Your task to perform on an android device: What's on my calendar today? Image 0: 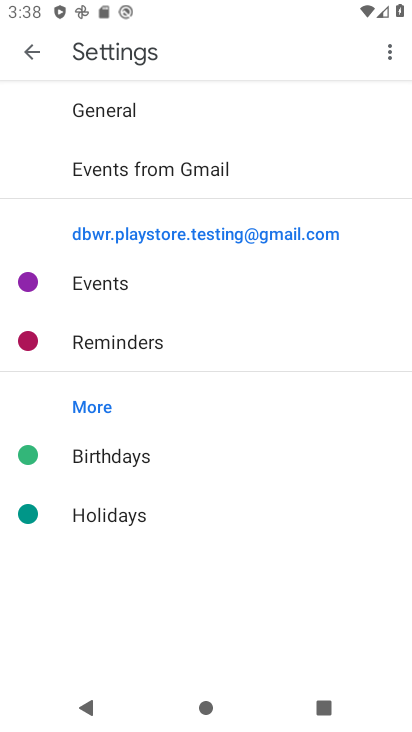
Step 0: press home button
Your task to perform on an android device: What's on my calendar today? Image 1: 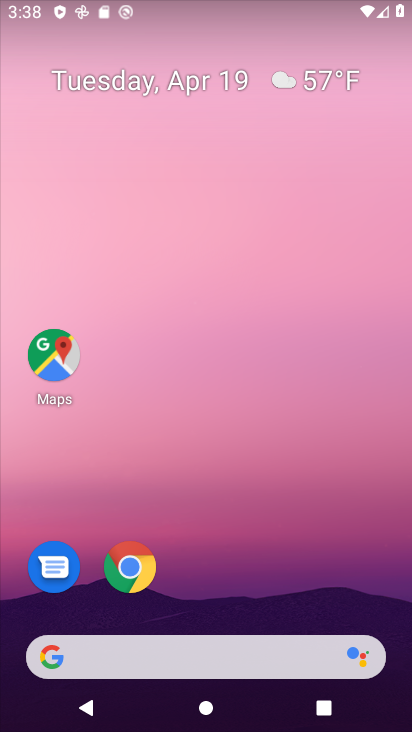
Step 1: drag from (340, 574) to (325, 177)
Your task to perform on an android device: What's on my calendar today? Image 2: 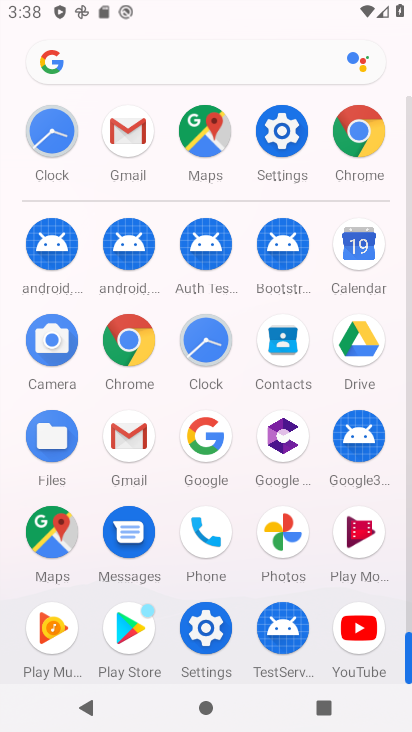
Step 2: click (362, 258)
Your task to perform on an android device: What's on my calendar today? Image 3: 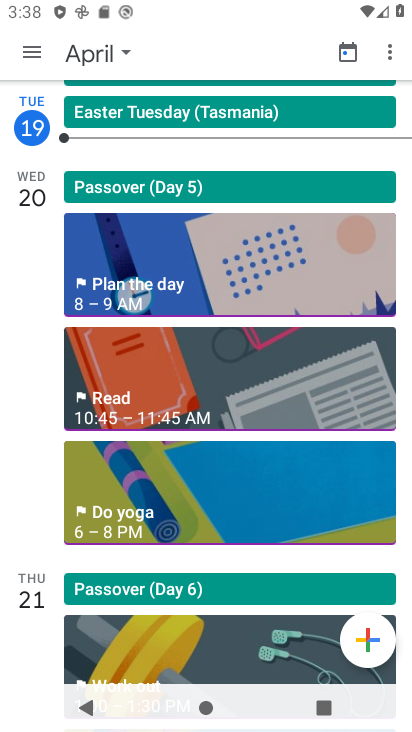
Step 3: click (40, 43)
Your task to perform on an android device: What's on my calendar today? Image 4: 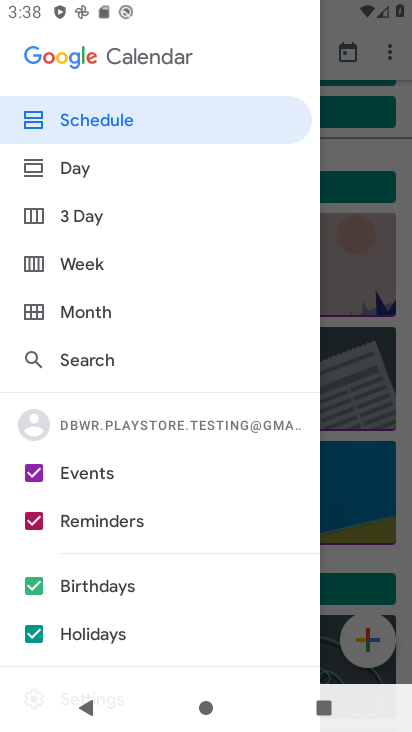
Step 4: click (74, 164)
Your task to perform on an android device: What's on my calendar today? Image 5: 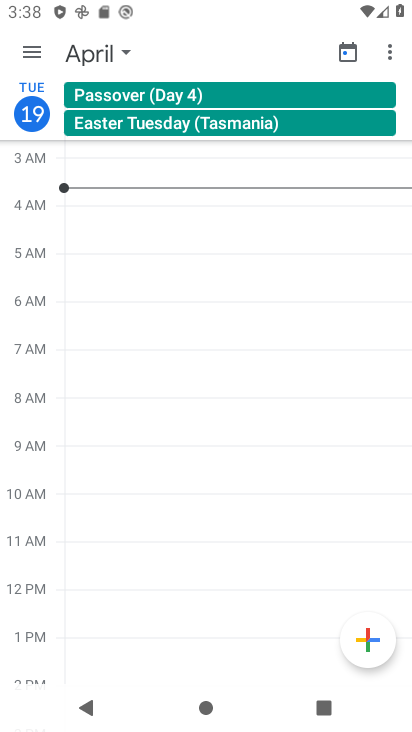
Step 5: task complete